Your task to perform on an android device: Go to Yahoo.com Image 0: 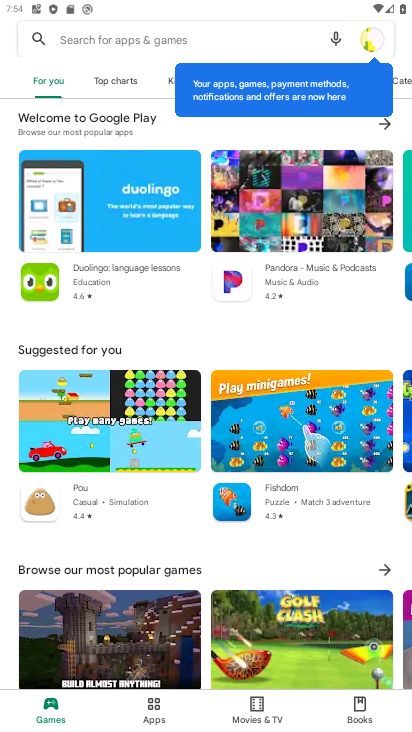
Step 0: press back button
Your task to perform on an android device: Go to Yahoo.com Image 1: 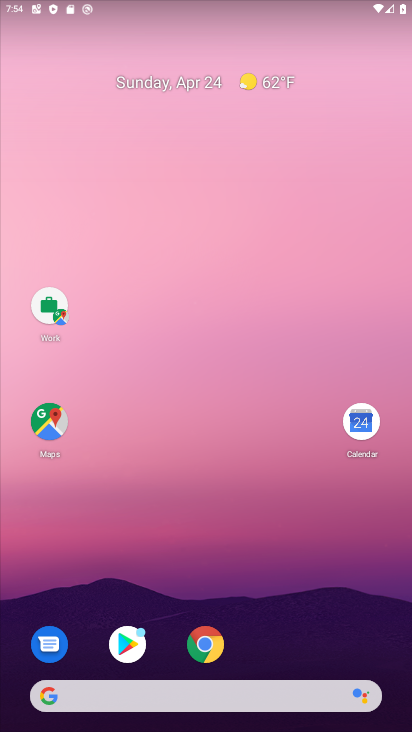
Step 1: click (204, 644)
Your task to perform on an android device: Go to Yahoo.com Image 2: 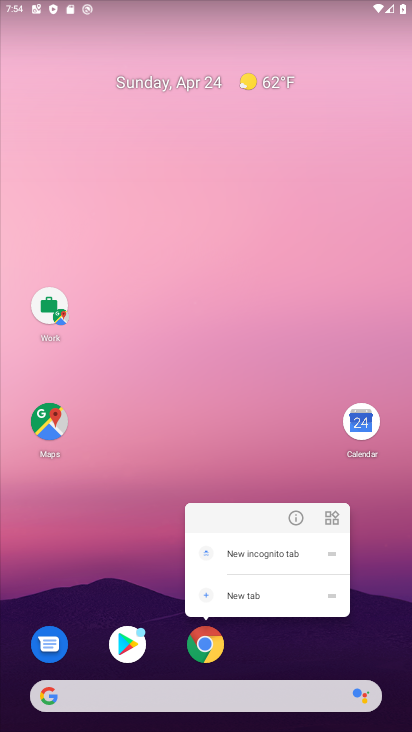
Step 2: click (207, 644)
Your task to perform on an android device: Go to Yahoo.com Image 3: 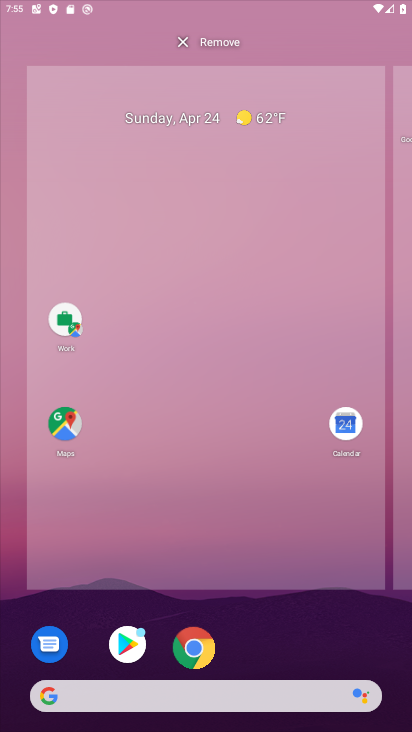
Step 3: click (192, 646)
Your task to perform on an android device: Go to Yahoo.com Image 4: 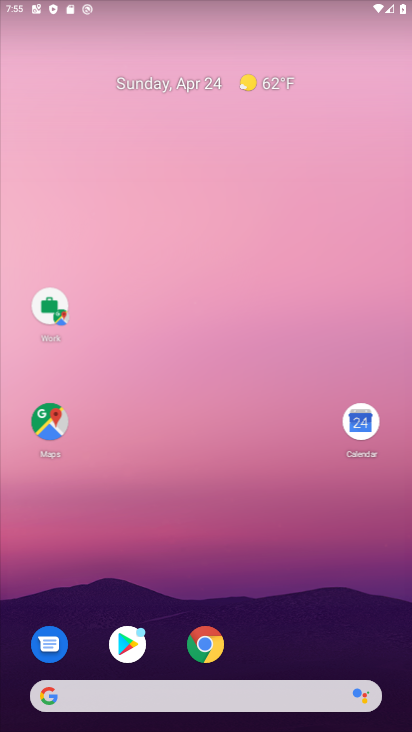
Step 4: click (224, 662)
Your task to perform on an android device: Go to Yahoo.com Image 5: 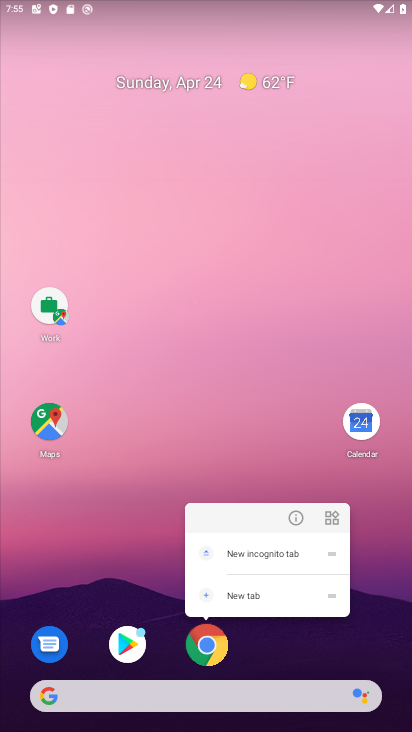
Step 5: click (212, 654)
Your task to perform on an android device: Go to Yahoo.com Image 6: 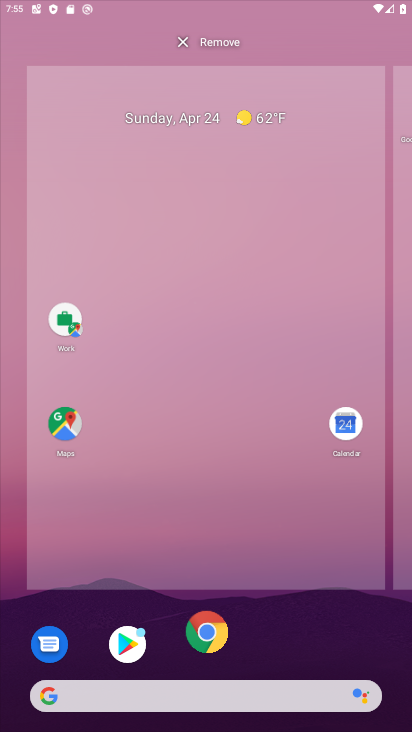
Step 6: click (198, 636)
Your task to perform on an android device: Go to Yahoo.com Image 7: 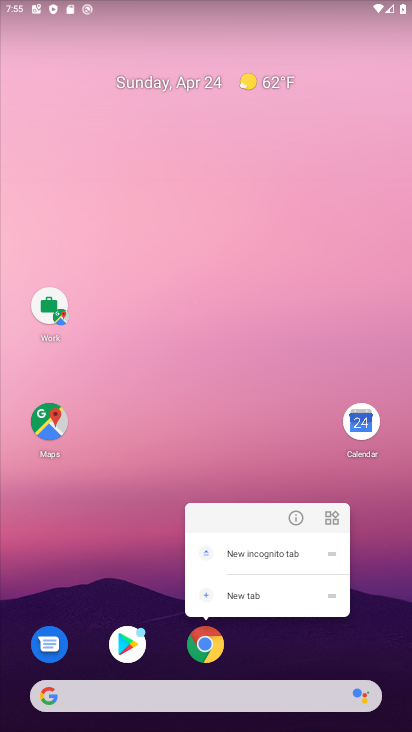
Step 7: click (240, 604)
Your task to perform on an android device: Go to Yahoo.com Image 8: 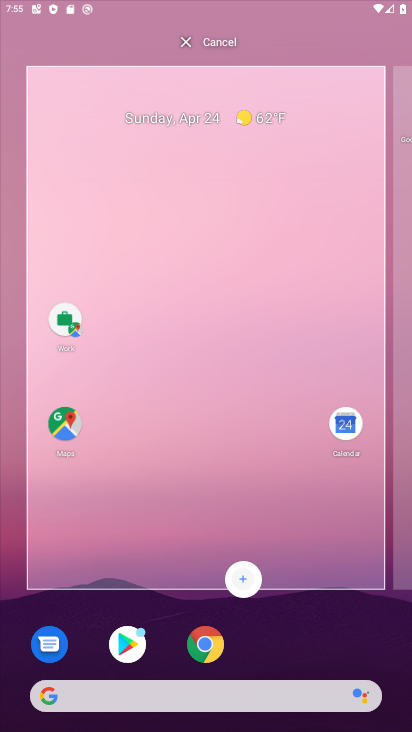
Step 8: click (247, 589)
Your task to perform on an android device: Go to Yahoo.com Image 9: 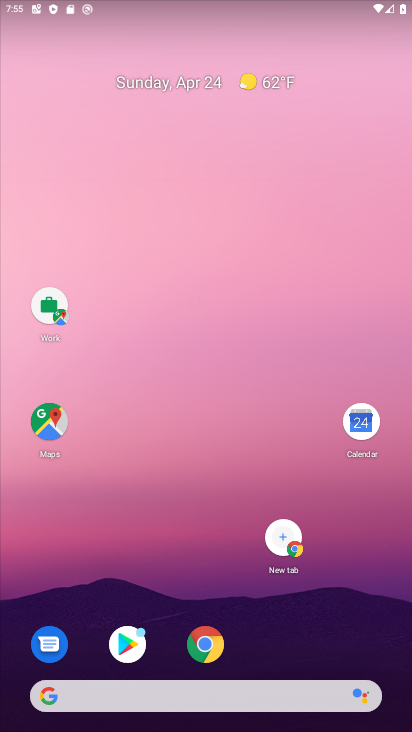
Step 9: drag from (212, 431) to (136, 114)
Your task to perform on an android device: Go to Yahoo.com Image 10: 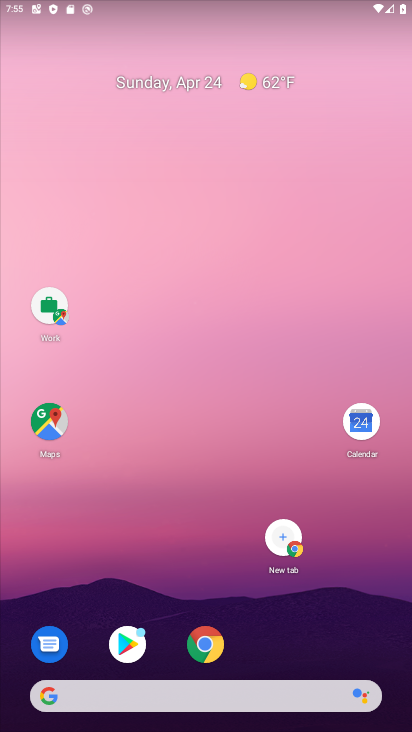
Step 10: drag from (279, 571) to (132, 151)
Your task to perform on an android device: Go to Yahoo.com Image 11: 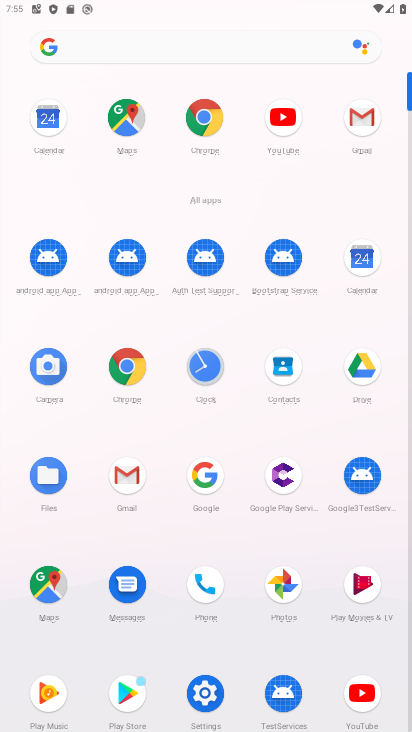
Step 11: click (128, 365)
Your task to perform on an android device: Go to Yahoo.com Image 12: 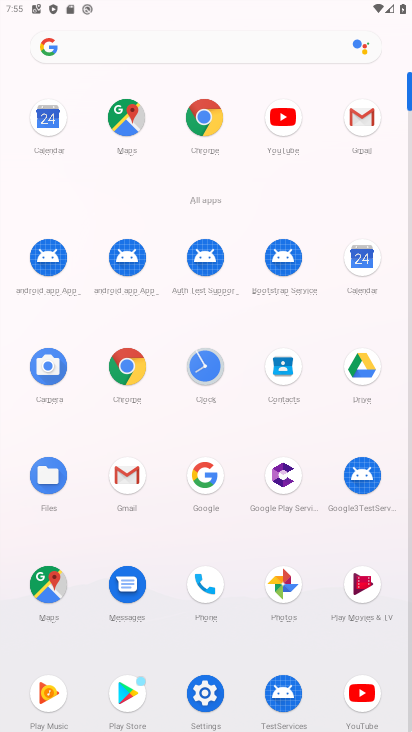
Step 12: click (118, 364)
Your task to perform on an android device: Go to Yahoo.com Image 13: 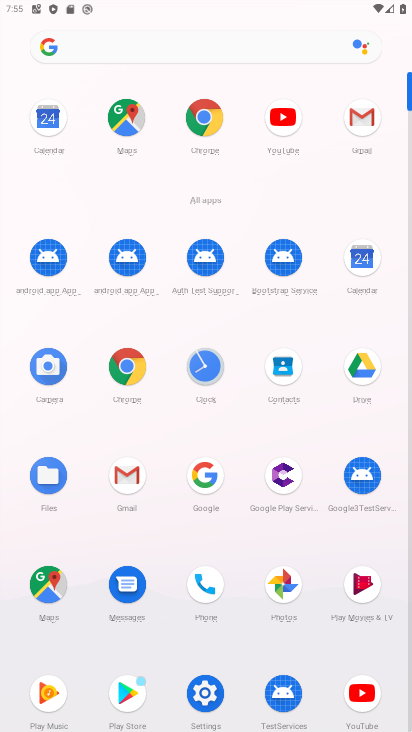
Step 13: click (130, 380)
Your task to perform on an android device: Go to Yahoo.com Image 14: 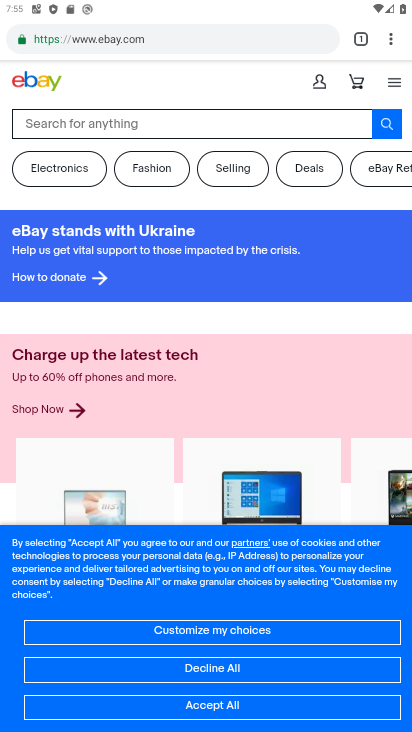
Step 14: click (120, 355)
Your task to perform on an android device: Go to Yahoo.com Image 15: 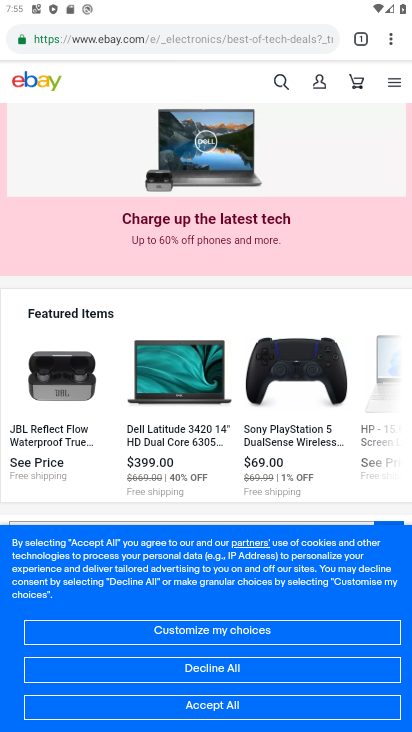
Step 15: drag from (390, 34) to (247, 123)
Your task to perform on an android device: Go to Yahoo.com Image 16: 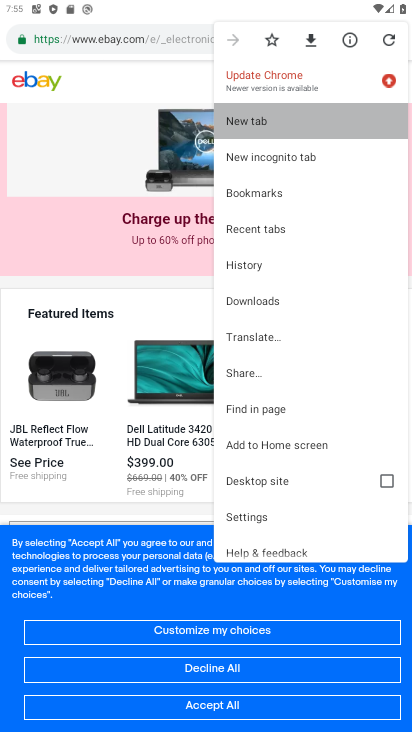
Step 16: click (247, 123)
Your task to perform on an android device: Go to Yahoo.com Image 17: 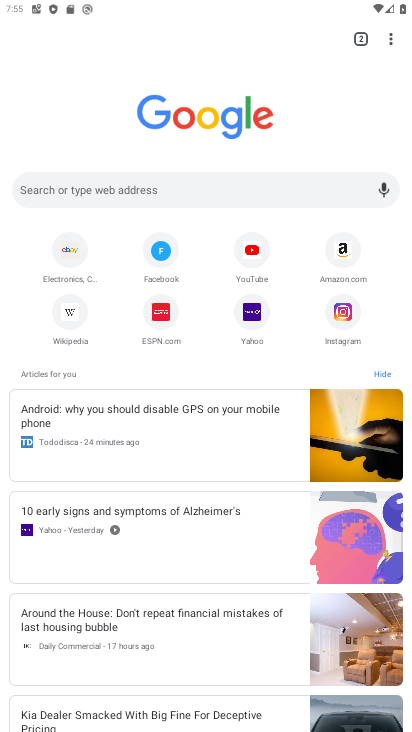
Step 17: click (65, 191)
Your task to perform on an android device: Go to Yahoo.com Image 18: 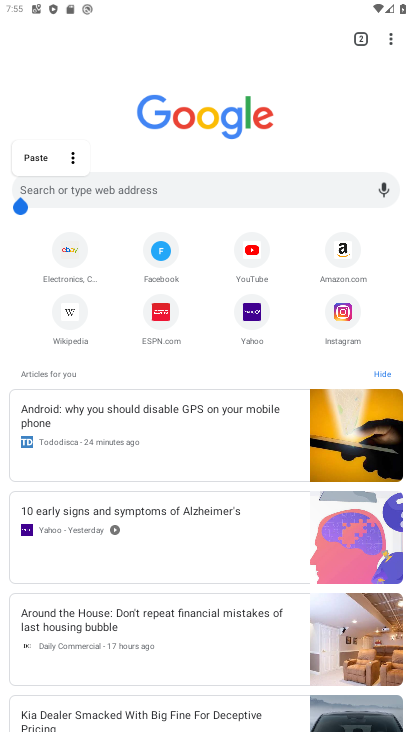
Step 18: click (95, 180)
Your task to perform on an android device: Go to Yahoo.com Image 19: 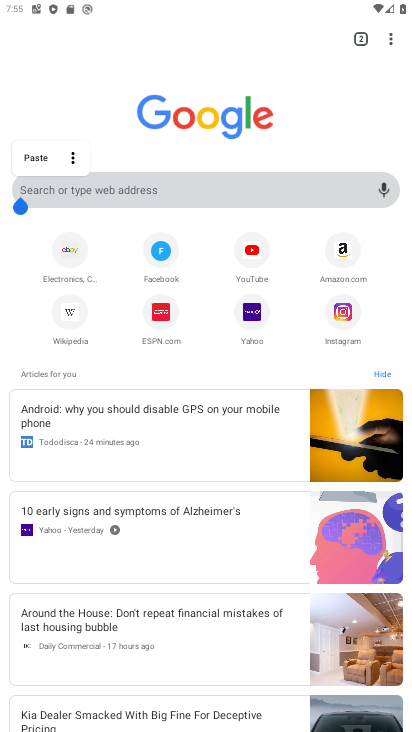
Step 19: click (91, 194)
Your task to perform on an android device: Go to Yahoo.com Image 20: 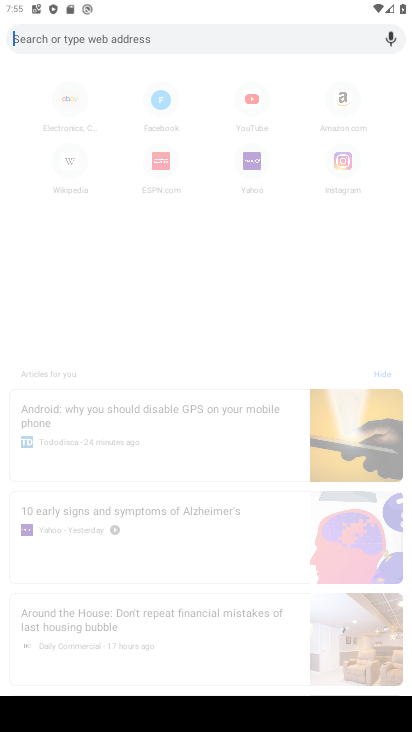
Step 20: click (259, 161)
Your task to perform on an android device: Go to Yahoo.com Image 21: 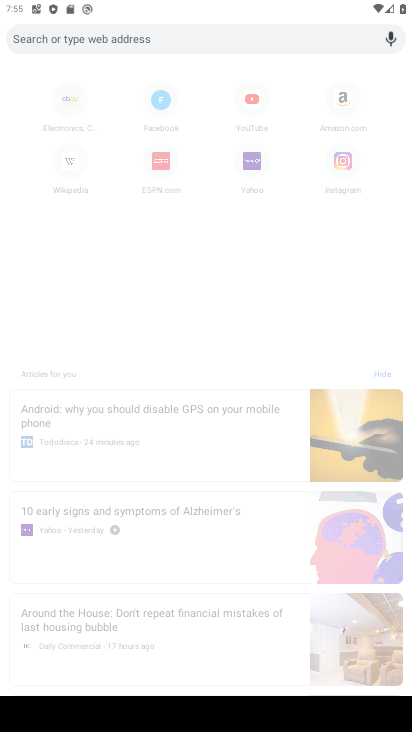
Step 21: click (254, 163)
Your task to perform on an android device: Go to Yahoo.com Image 22: 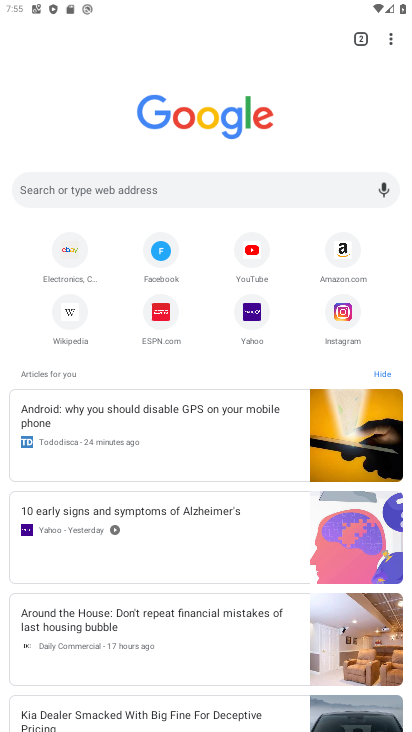
Step 22: click (255, 164)
Your task to perform on an android device: Go to Yahoo.com Image 23: 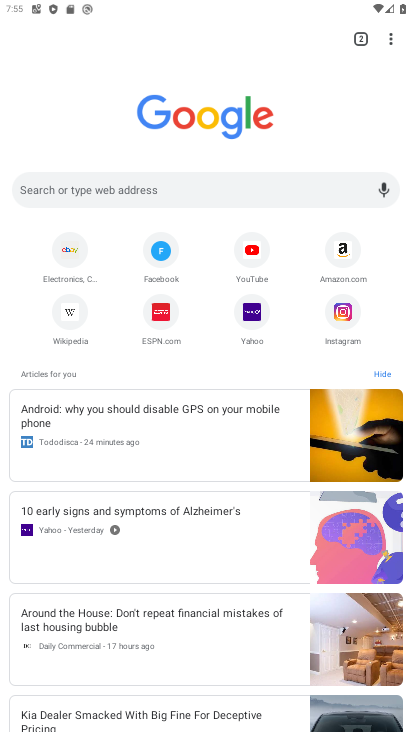
Step 23: click (243, 312)
Your task to perform on an android device: Go to Yahoo.com Image 24: 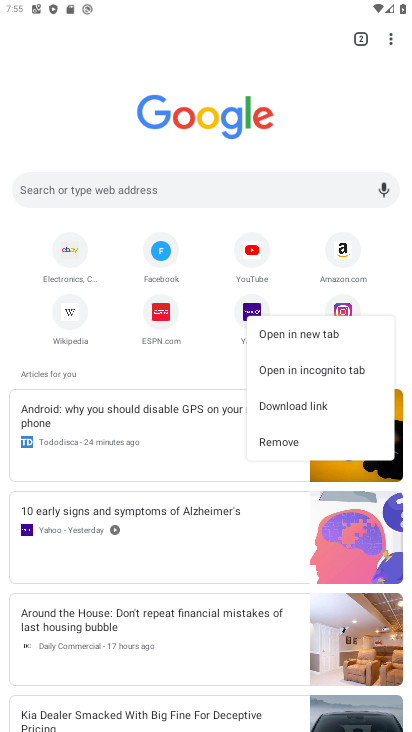
Step 24: click (270, 328)
Your task to perform on an android device: Go to Yahoo.com Image 25: 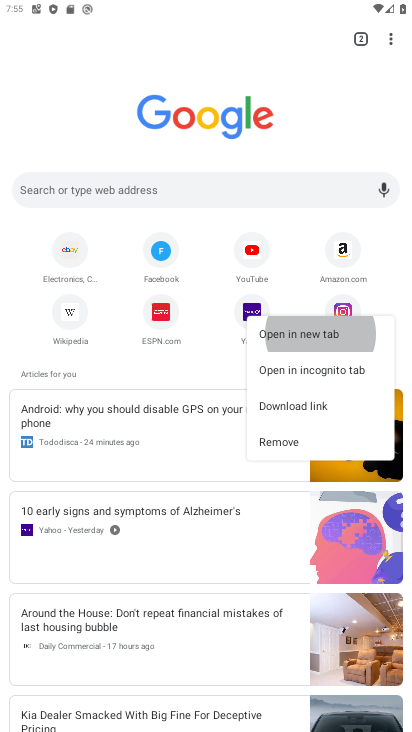
Step 25: click (271, 329)
Your task to perform on an android device: Go to Yahoo.com Image 26: 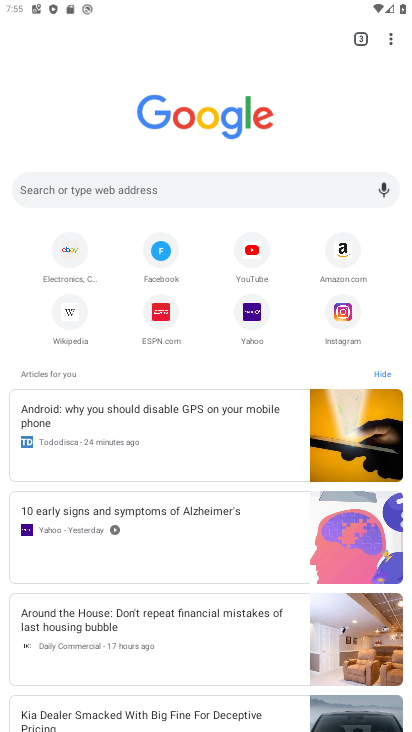
Step 26: click (256, 311)
Your task to perform on an android device: Go to Yahoo.com Image 27: 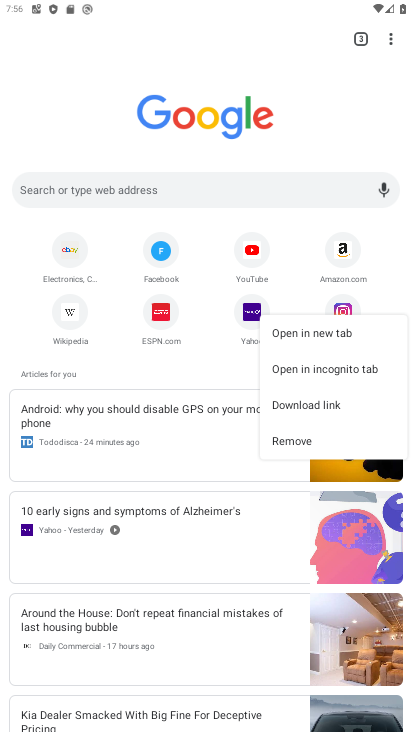
Step 27: click (313, 325)
Your task to perform on an android device: Go to Yahoo.com Image 28: 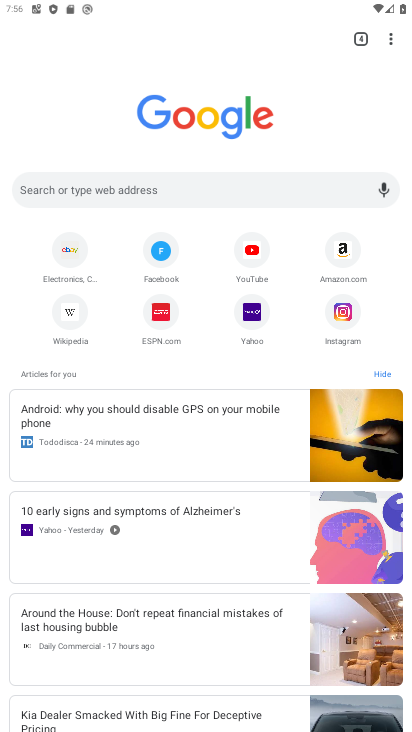
Step 28: click (248, 322)
Your task to perform on an android device: Go to Yahoo.com Image 29: 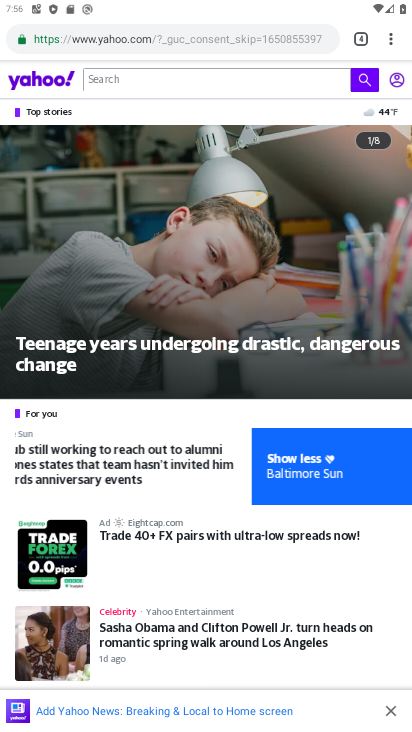
Step 29: task complete